Your task to perform on an android device: set an alarm Image 0: 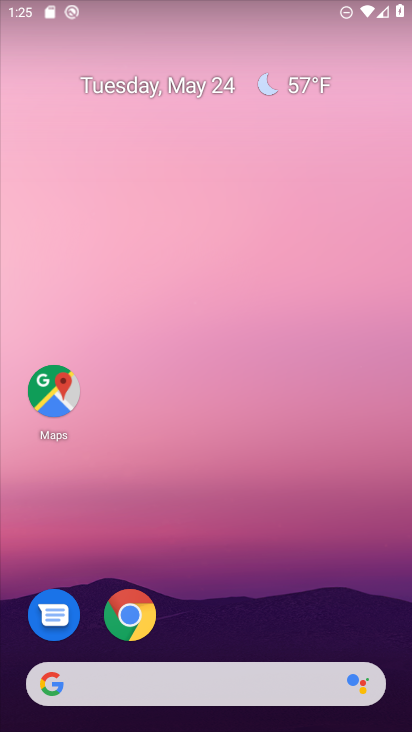
Step 0: drag from (217, 680) to (206, 318)
Your task to perform on an android device: set an alarm Image 1: 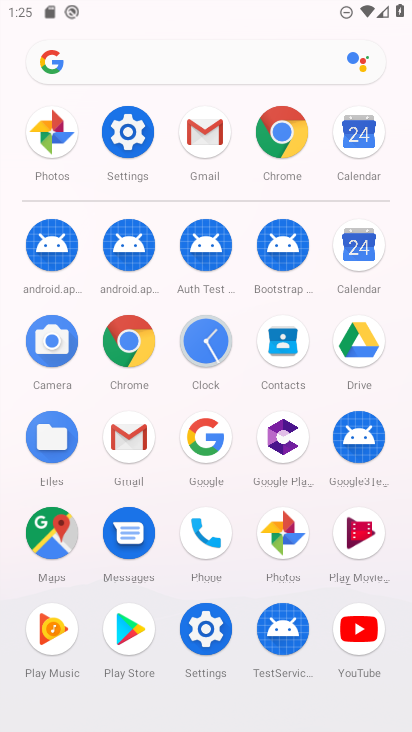
Step 1: click (206, 349)
Your task to perform on an android device: set an alarm Image 2: 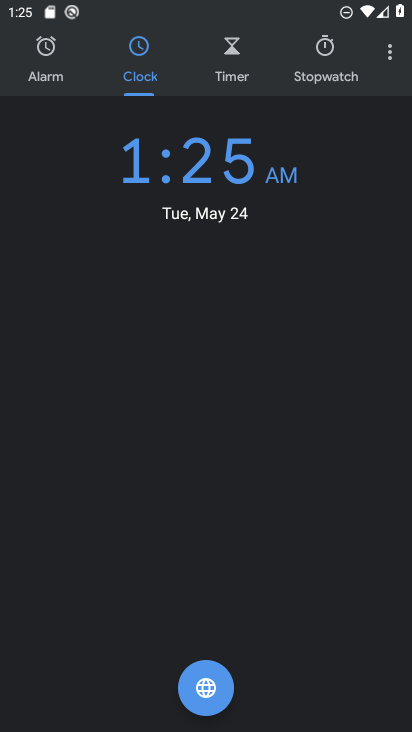
Step 2: click (42, 56)
Your task to perform on an android device: set an alarm Image 3: 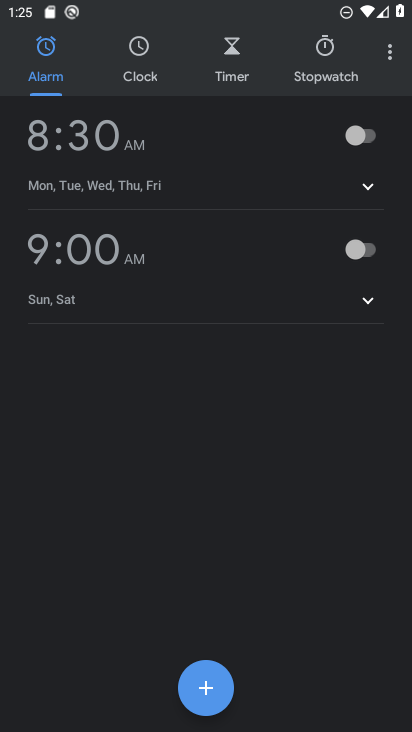
Step 3: click (348, 246)
Your task to perform on an android device: set an alarm Image 4: 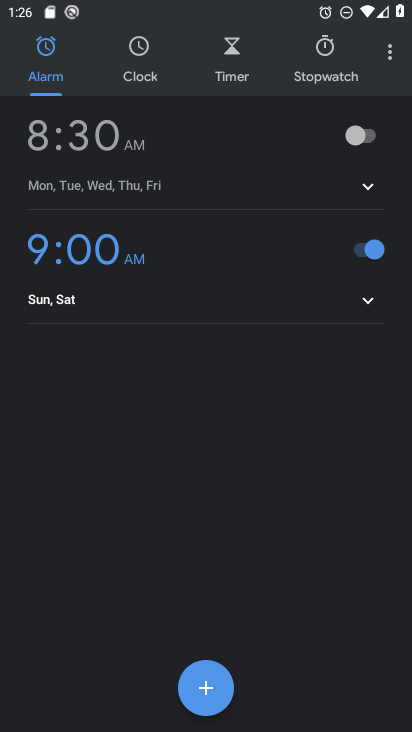
Step 4: click (363, 143)
Your task to perform on an android device: set an alarm Image 5: 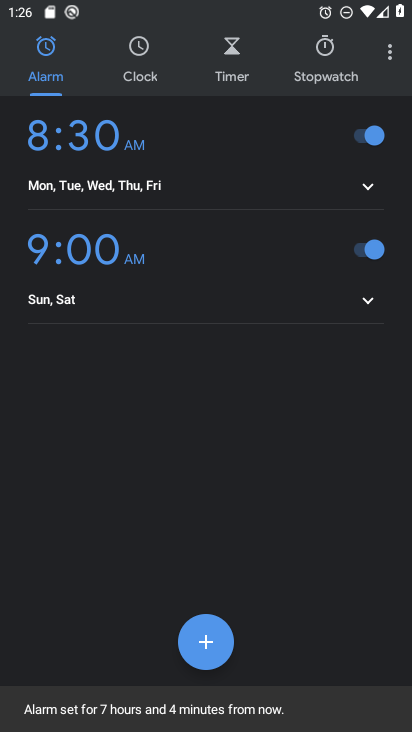
Step 5: task complete